Your task to perform on an android device: Go to settings Image 0: 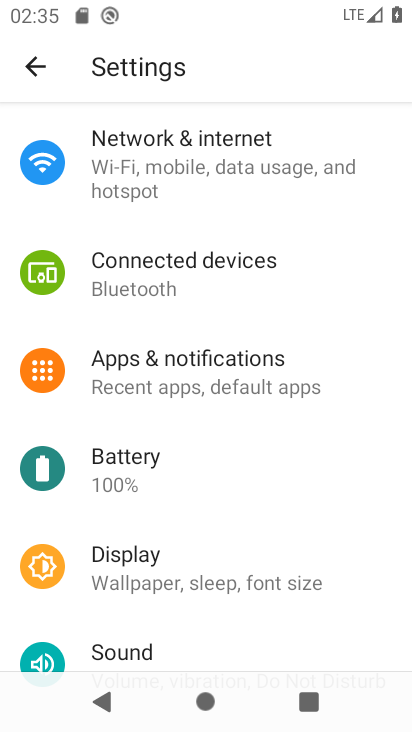
Step 0: press home button
Your task to perform on an android device: Go to settings Image 1: 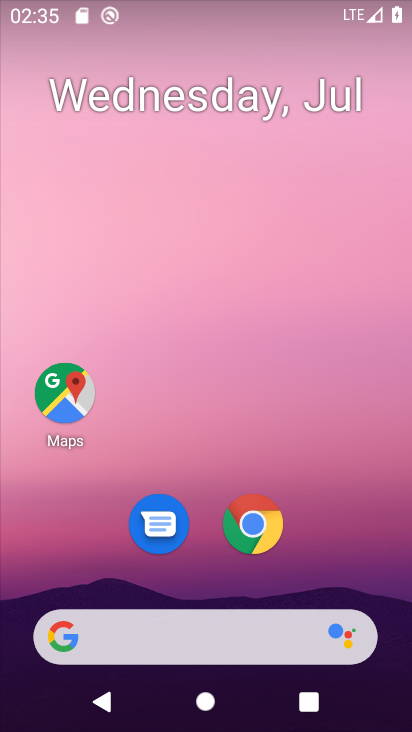
Step 1: drag from (292, 546) to (305, 69)
Your task to perform on an android device: Go to settings Image 2: 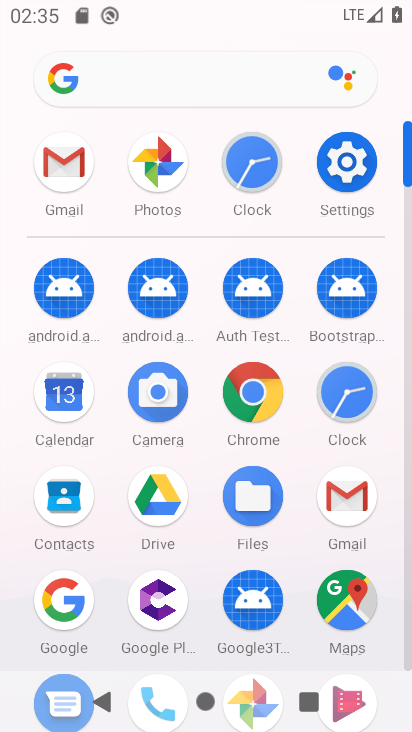
Step 2: click (345, 157)
Your task to perform on an android device: Go to settings Image 3: 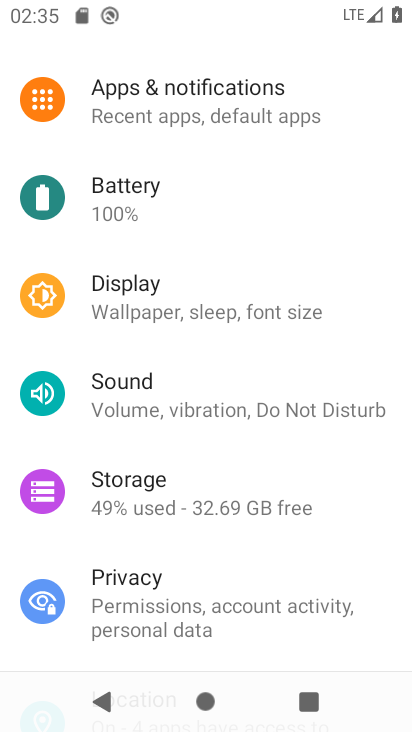
Step 3: task complete